Your task to perform on an android device: Search for "duracell triple a" on newegg.com, select the first entry, and add it to the cart. Image 0: 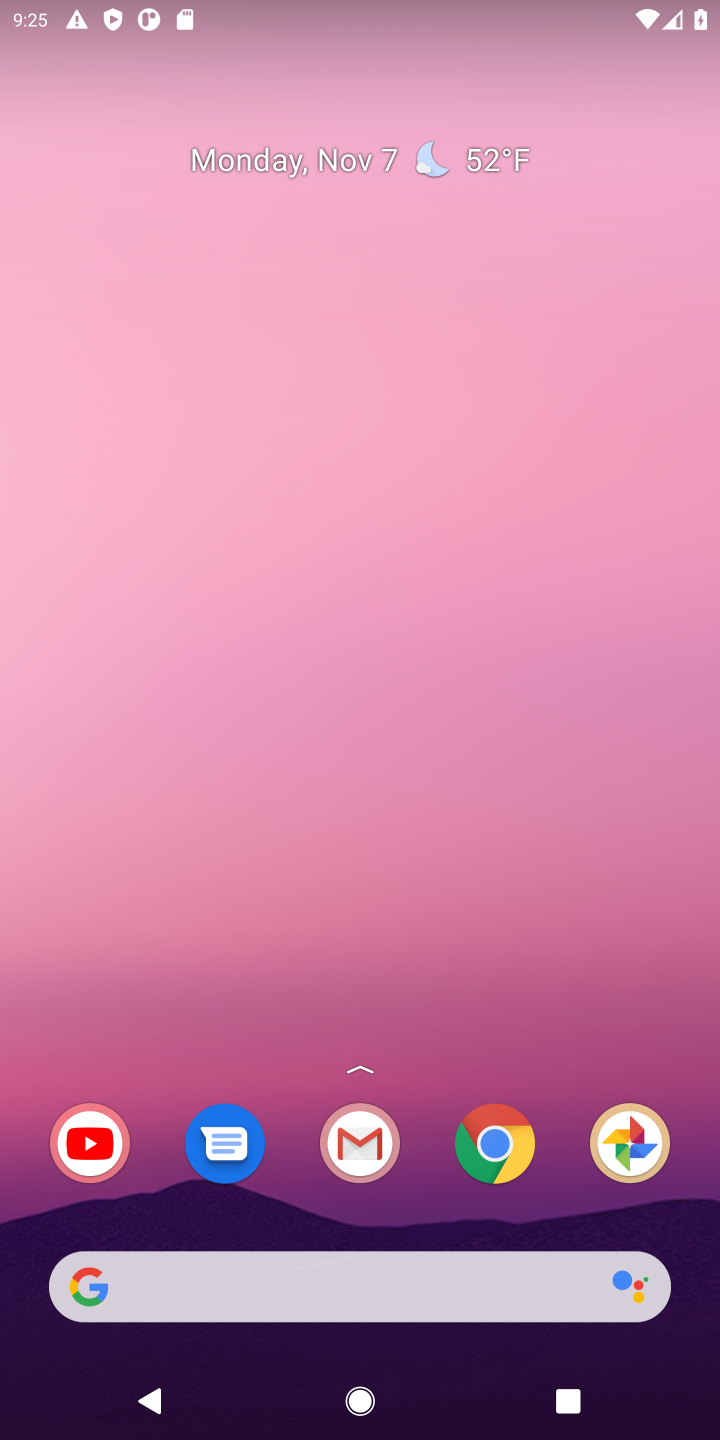
Step 0: press home button
Your task to perform on an android device: Search for "duracell triple a" on newegg.com, select the first entry, and add it to the cart. Image 1: 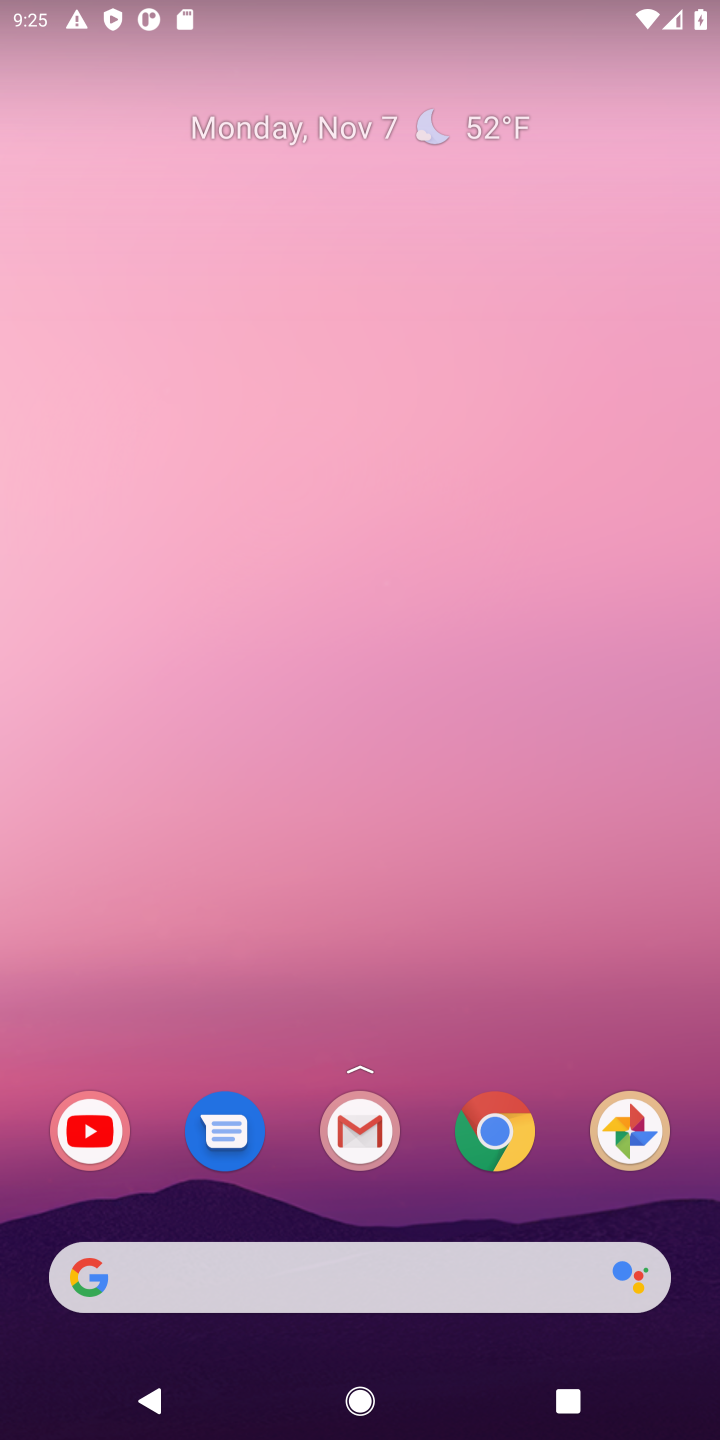
Step 1: click (517, 1149)
Your task to perform on an android device: Search for "duracell triple a" on newegg.com, select the first entry, and add it to the cart. Image 2: 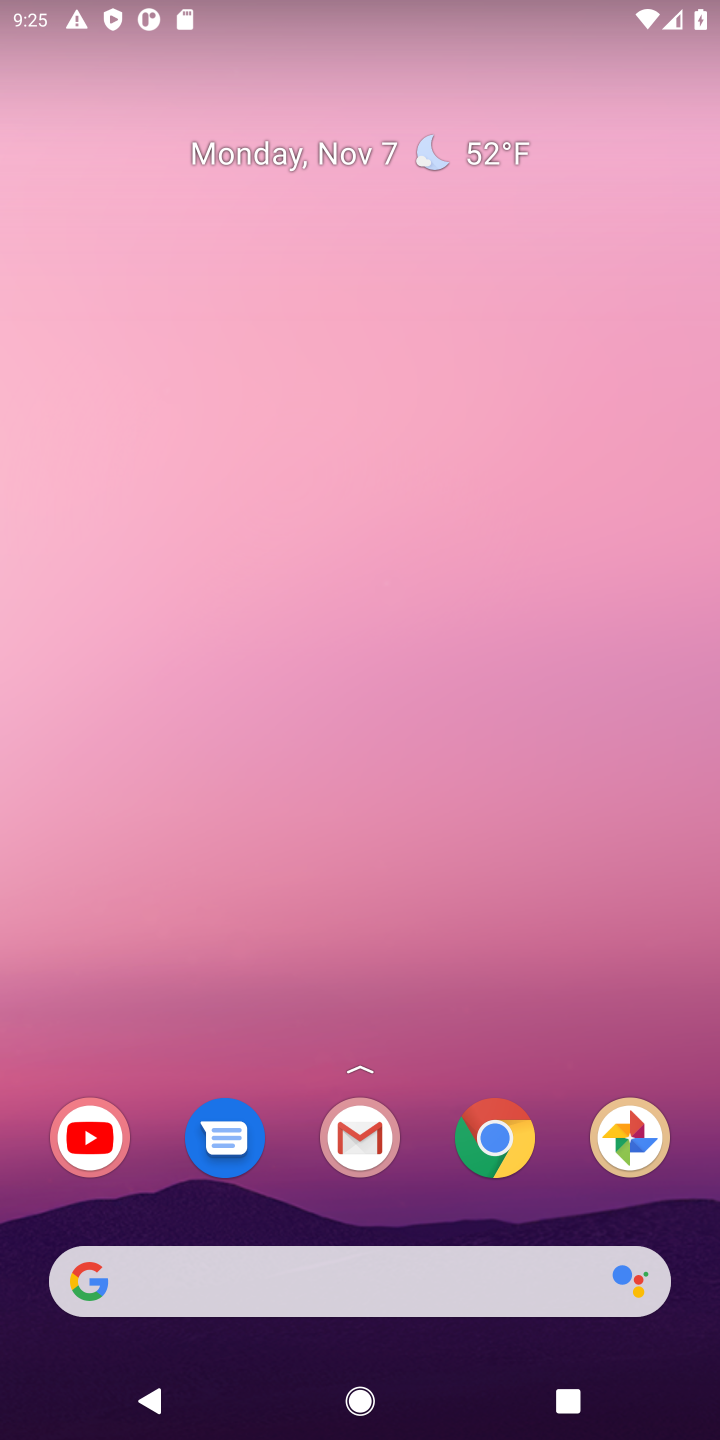
Step 2: click (521, 1147)
Your task to perform on an android device: Search for "duracell triple a" on newegg.com, select the first entry, and add it to the cart. Image 3: 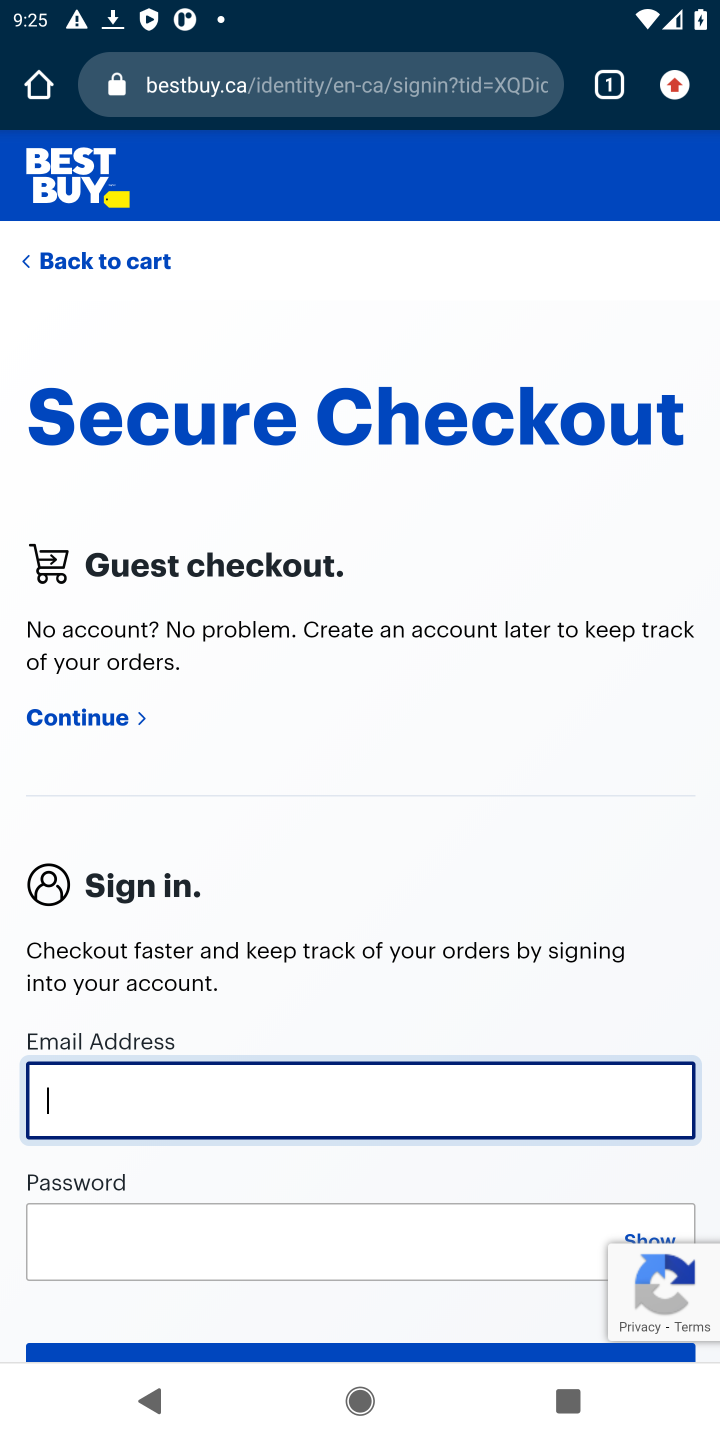
Step 3: click (217, 94)
Your task to perform on an android device: Search for "duracell triple a" on newegg.com, select the first entry, and add it to the cart. Image 4: 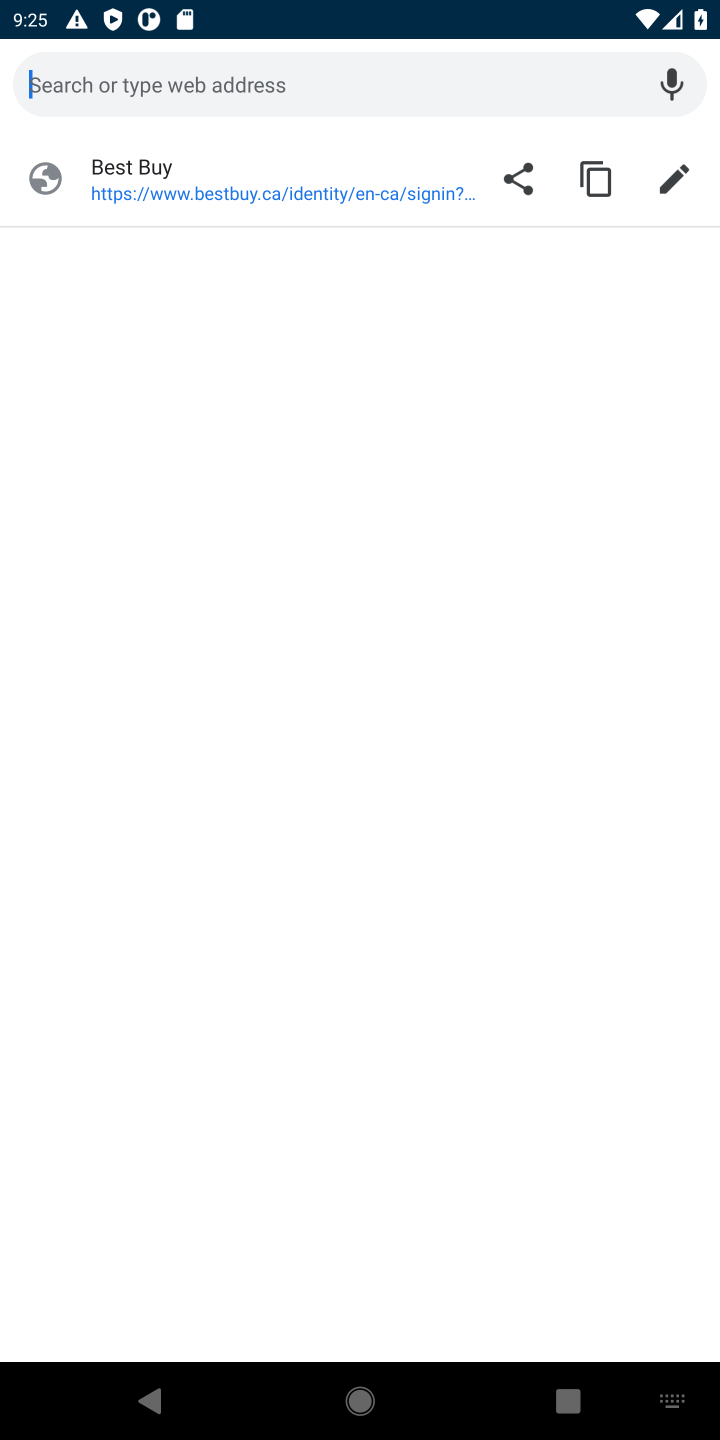
Step 4: type "newegg"
Your task to perform on an android device: Search for "duracell triple a" on newegg.com, select the first entry, and add it to the cart. Image 5: 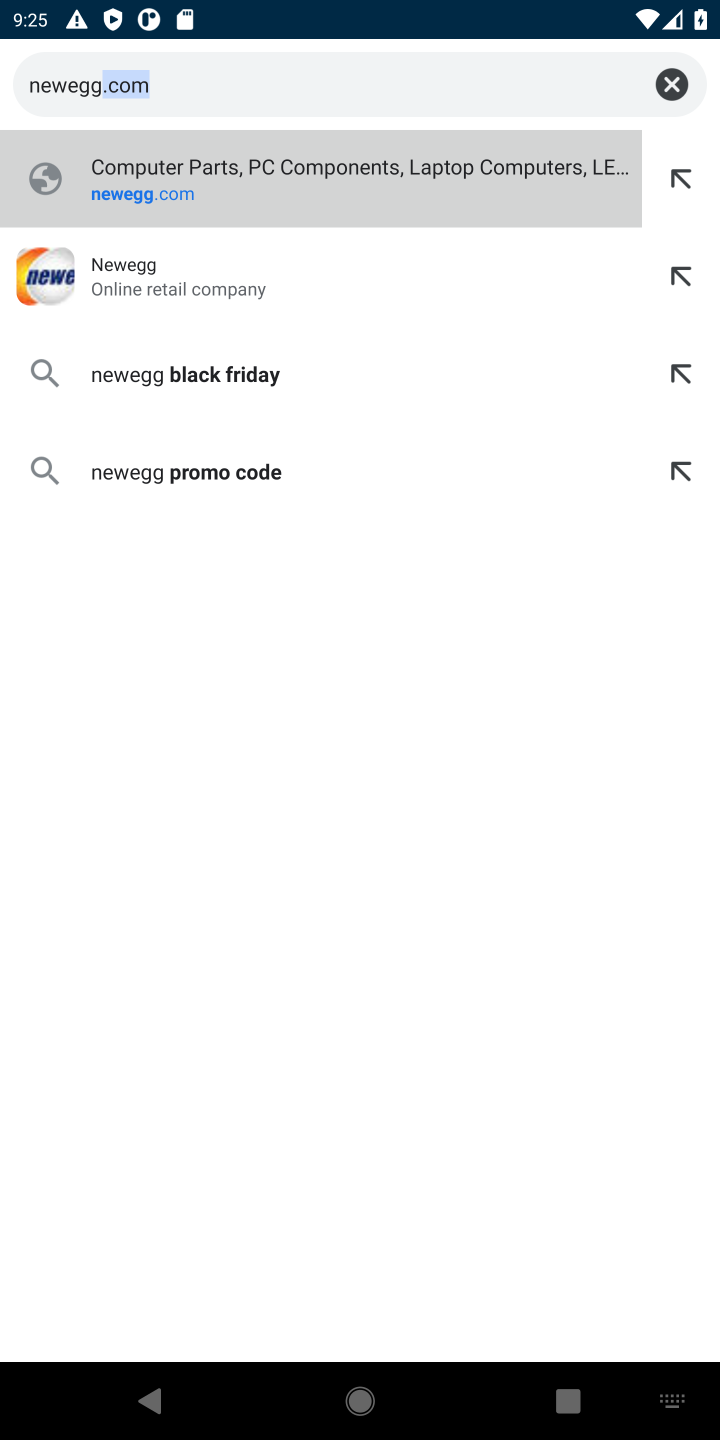
Step 5: click (135, 289)
Your task to perform on an android device: Search for "duracell triple a" on newegg.com, select the first entry, and add it to the cart. Image 6: 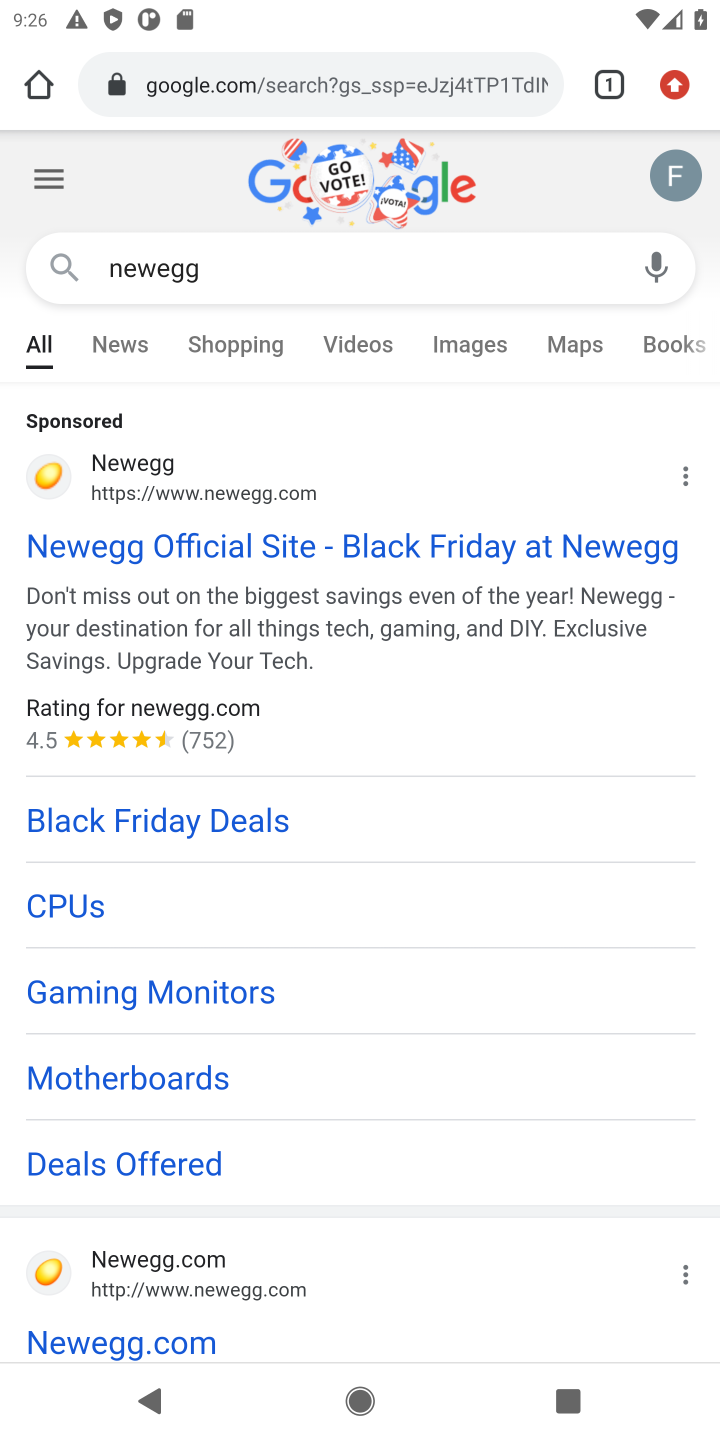
Step 6: click (49, 541)
Your task to perform on an android device: Search for "duracell triple a" on newegg.com, select the first entry, and add it to the cart. Image 7: 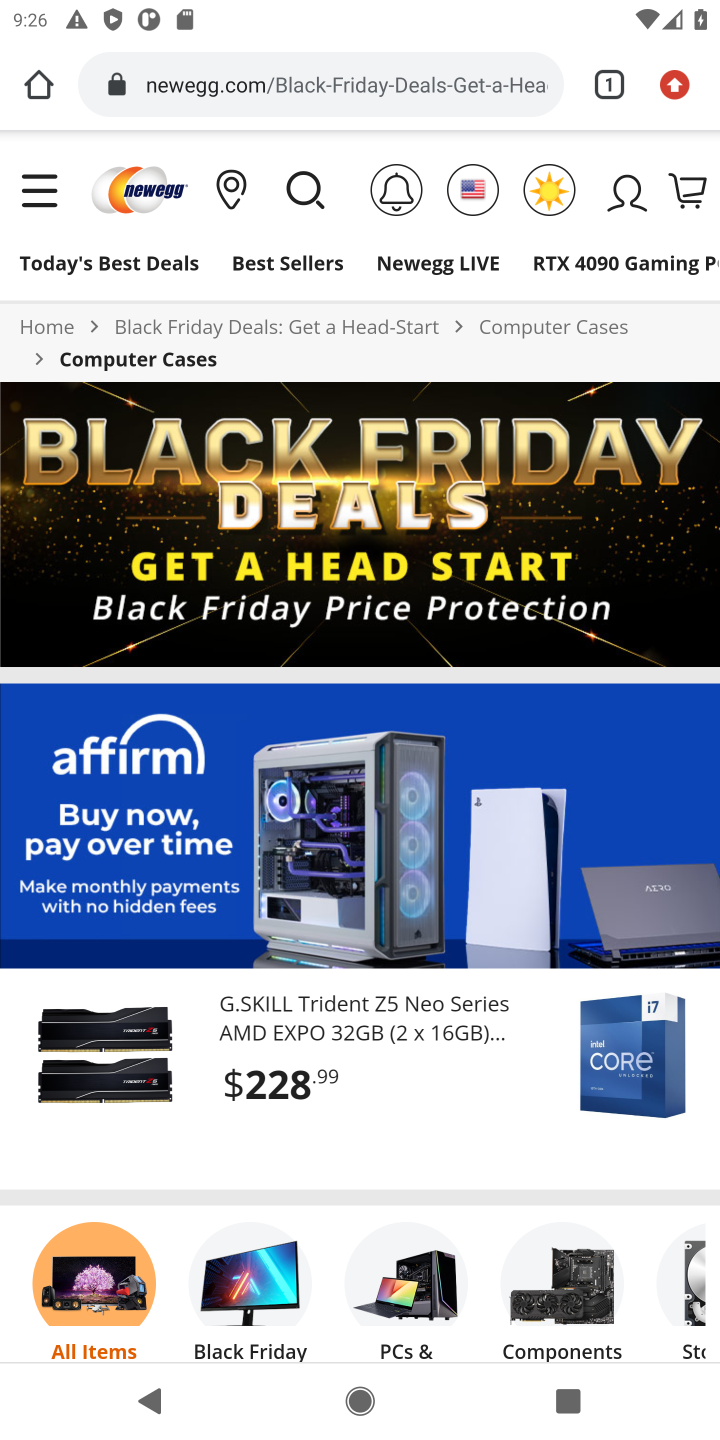
Step 7: click (297, 196)
Your task to perform on an android device: Search for "duracell triple a" on newegg.com, select the first entry, and add it to the cart. Image 8: 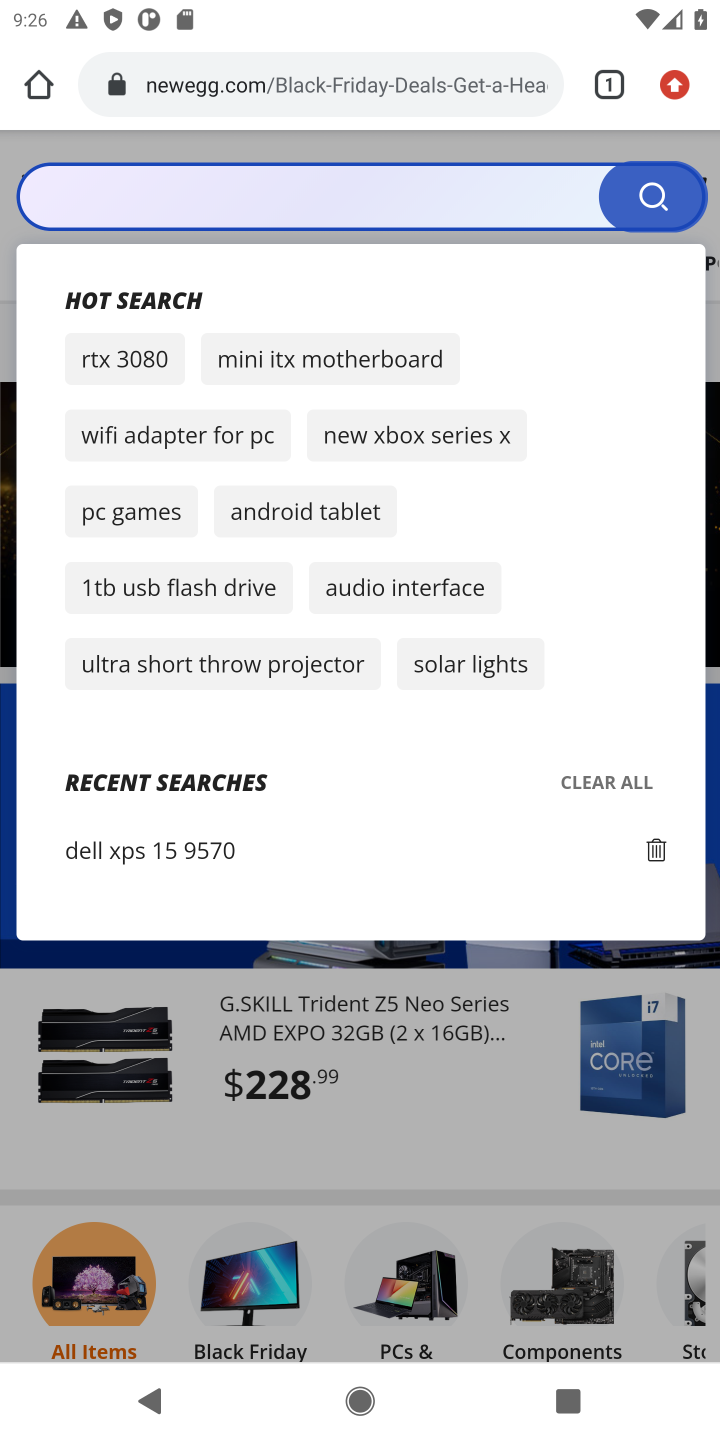
Step 8: click (140, 180)
Your task to perform on an android device: Search for "duracell triple a" on newegg.com, select the first entry, and add it to the cart. Image 9: 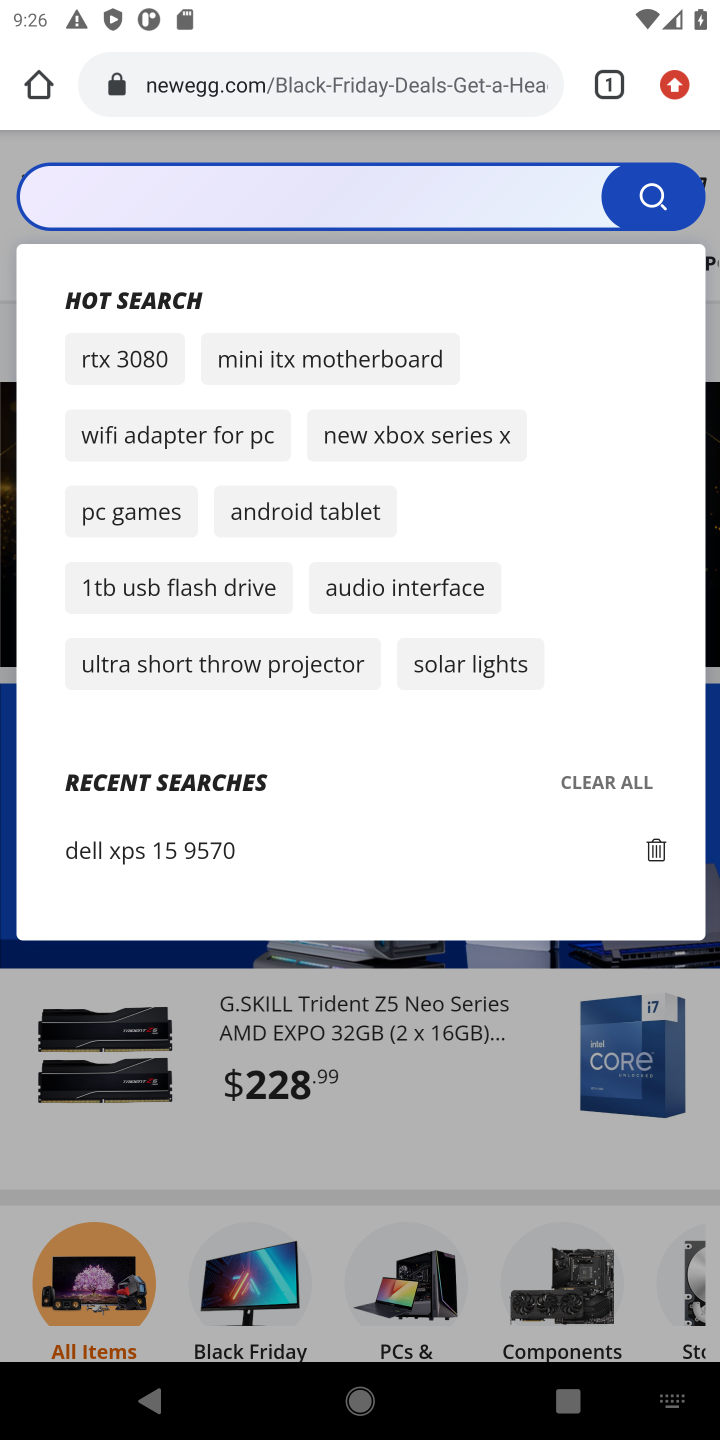
Step 9: type "duracell triple"
Your task to perform on an android device: Search for "duracell triple a" on newegg.com, select the first entry, and add it to the cart. Image 10: 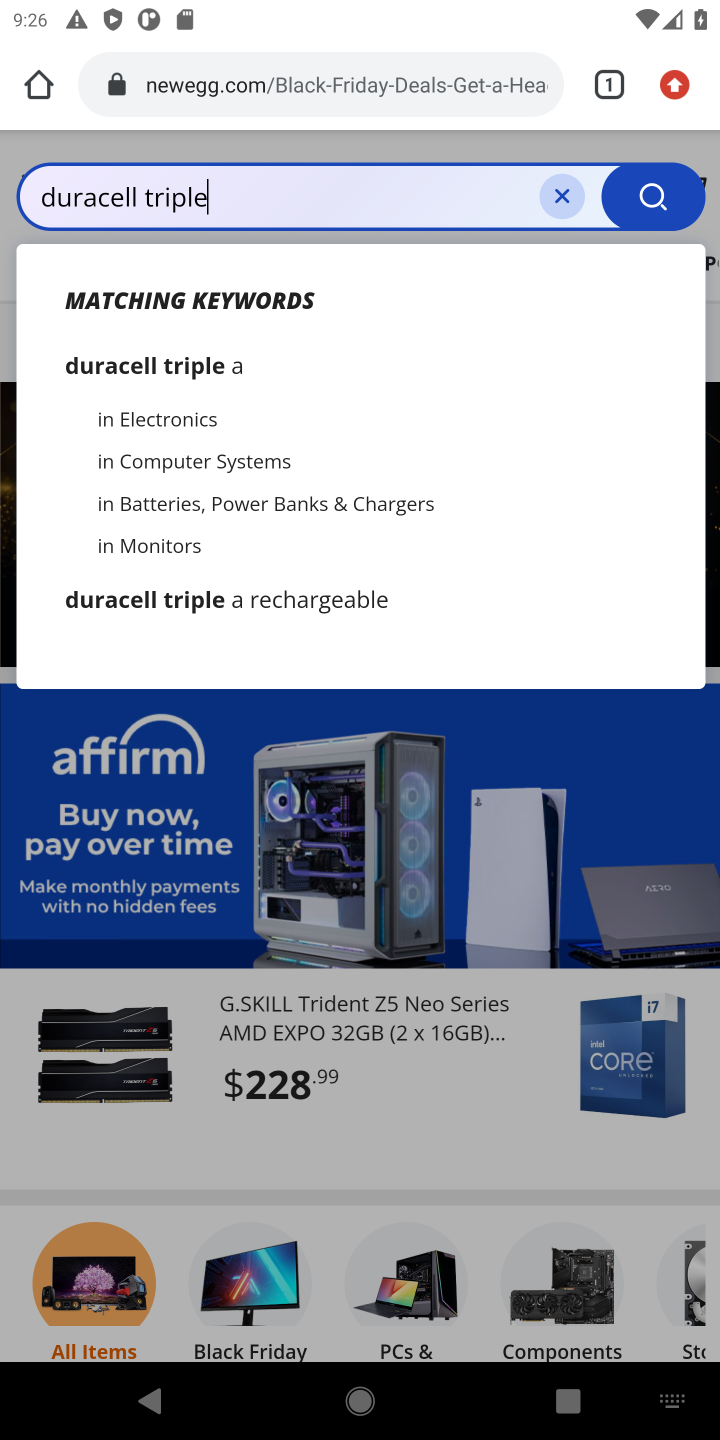
Step 10: click (186, 375)
Your task to perform on an android device: Search for "duracell triple a" on newegg.com, select the first entry, and add it to the cart. Image 11: 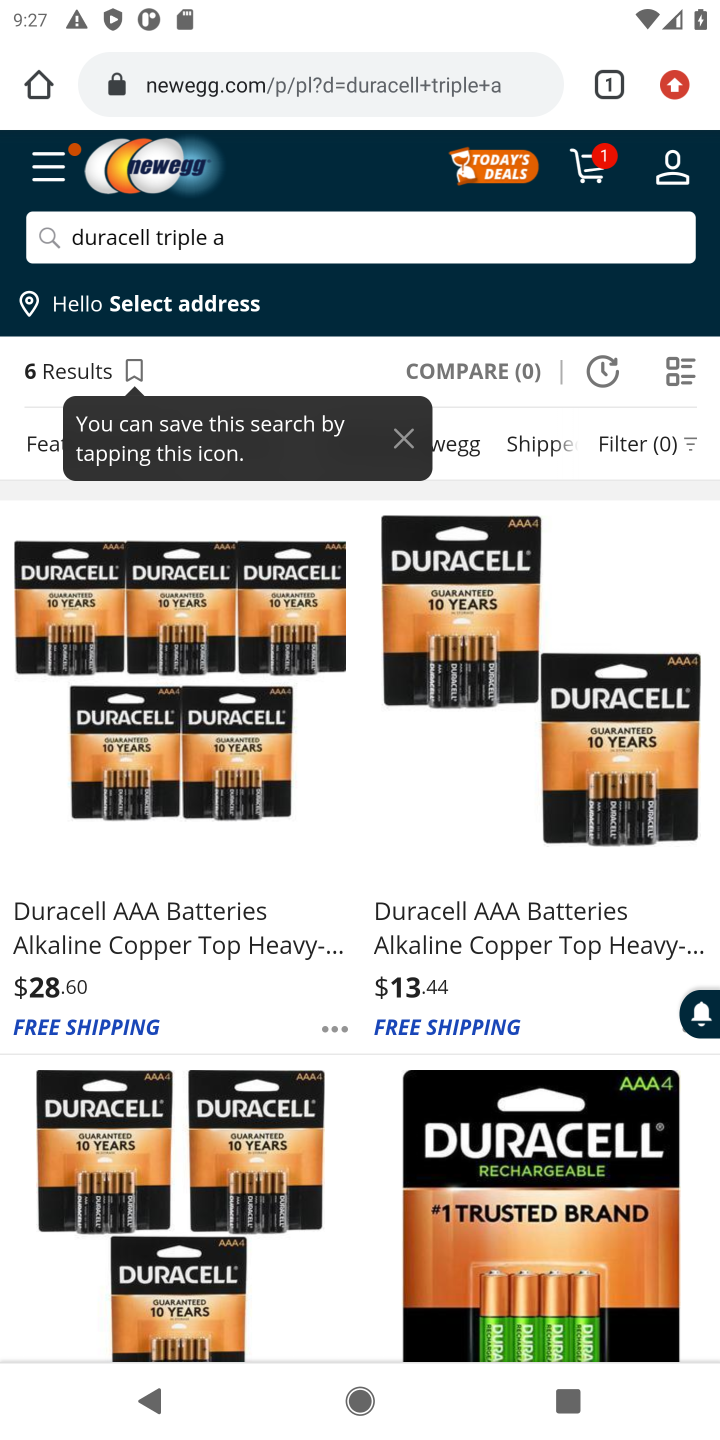
Step 11: click (505, 1179)
Your task to perform on an android device: Search for "duracell triple a" on newegg.com, select the first entry, and add it to the cart. Image 12: 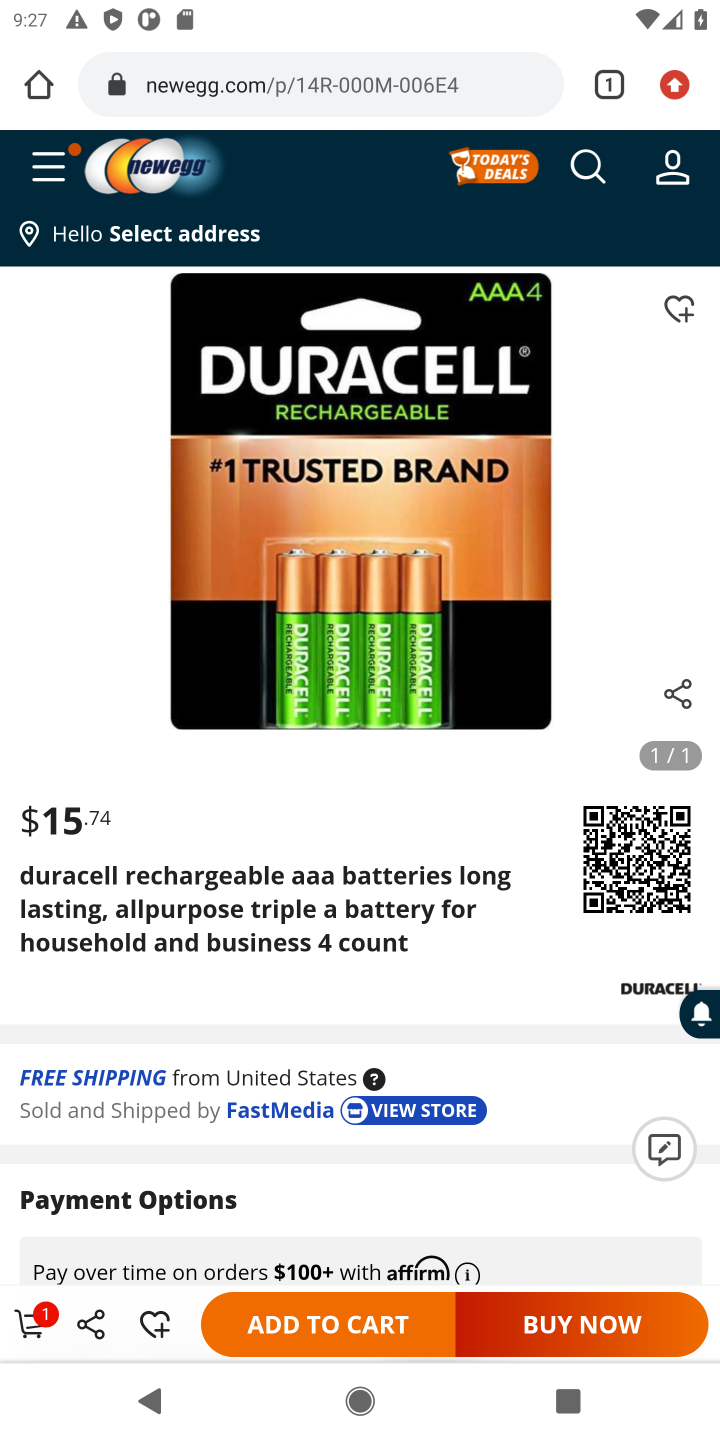
Step 12: click (314, 1318)
Your task to perform on an android device: Search for "duracell triple a" on newegg.com, select the first entry, and add it to the cart. Image 13: 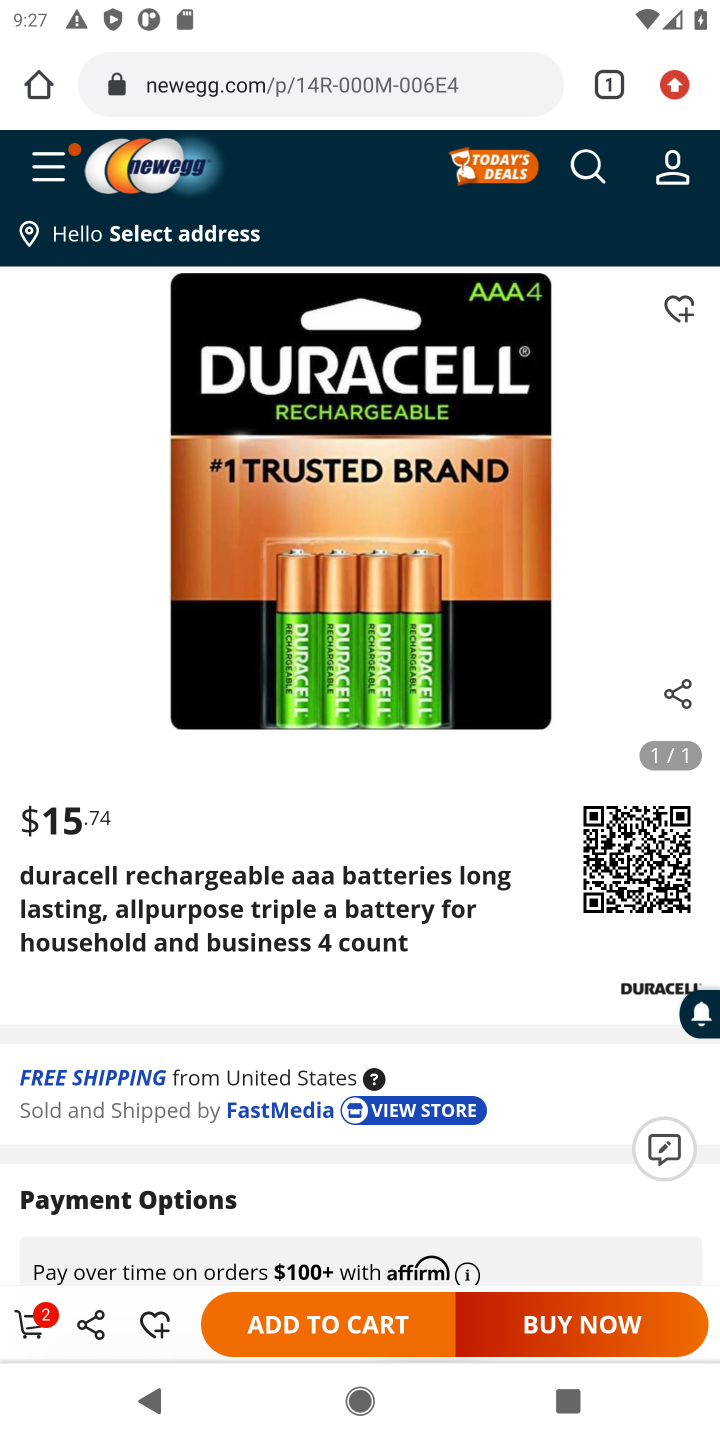
Step 13: click (314, 1318)
Your task to perform on an android device: Search for "duracell triple a" on newegg.com, select the first entry, and add it to the cart. Image 14: 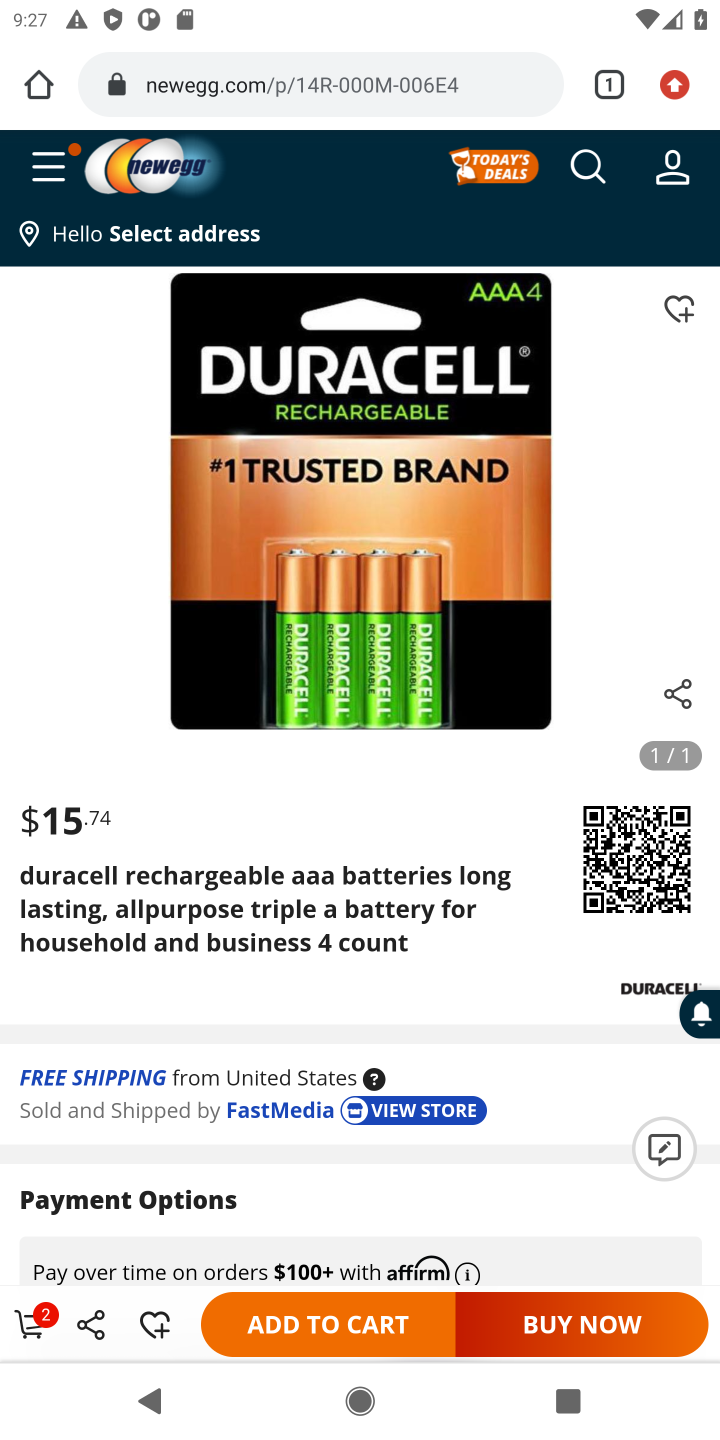
Step 14: drag from (332, 936) to (399, 376)
Your task to perform on an android device: Search for "duracell triple a" on newegg.com, select the first entry, and add it to the cart. Image 15: 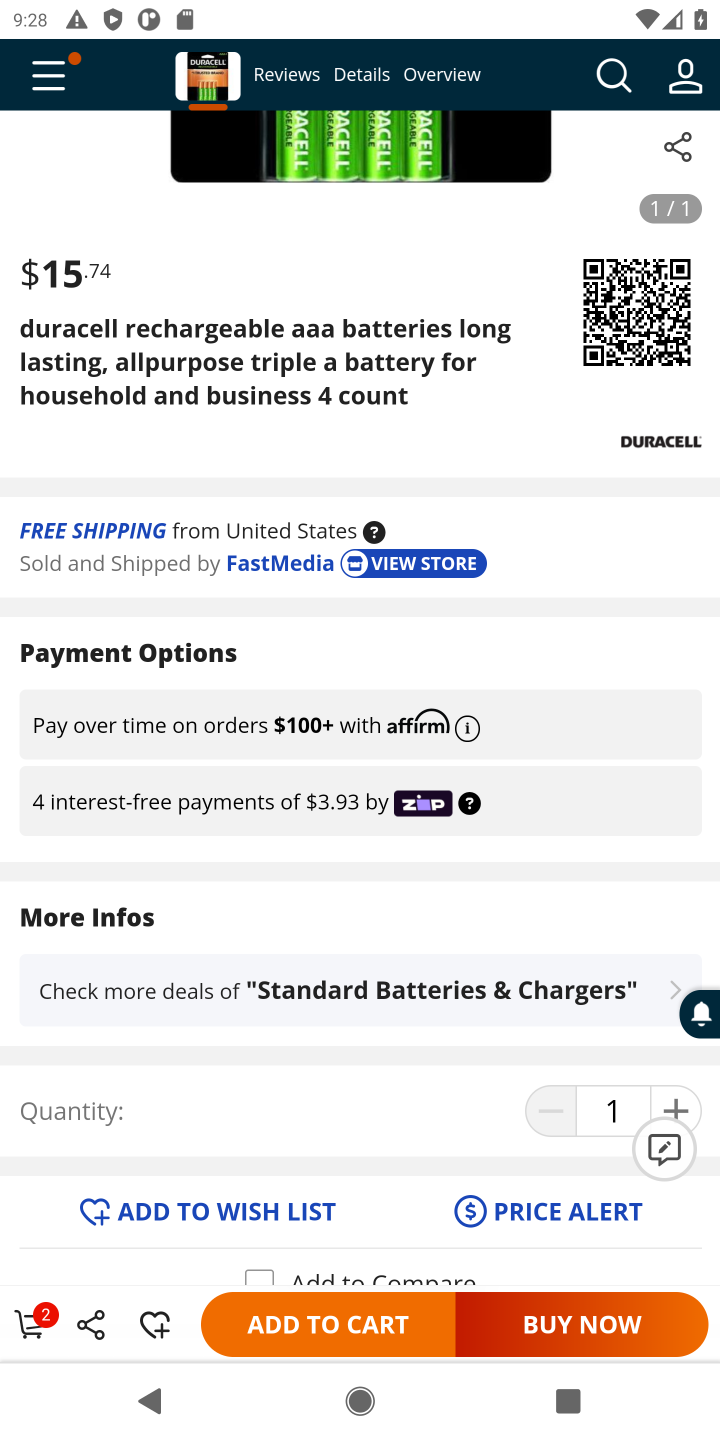
Step 15: drag from (307, 1071) to (295, 768)
Your task to perform on an android device: Search for "duracell triple a" on newegg.com, select the first entry, and add it to the cart. Image 16: 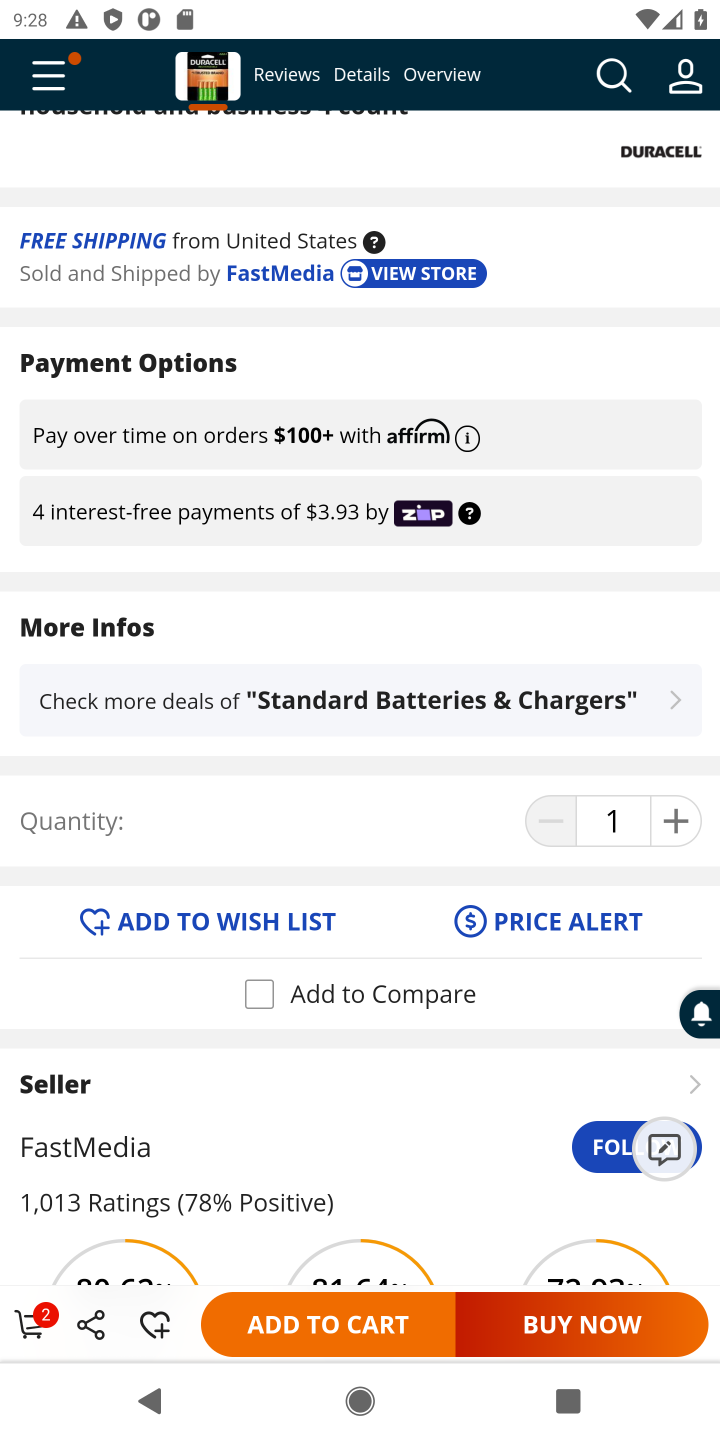
Step 16: click (308, 1335)
Your task to perform on an android device: Search for "duracell triple a" on newegg.com, select the first entry, and add it to the cart. Image 17: 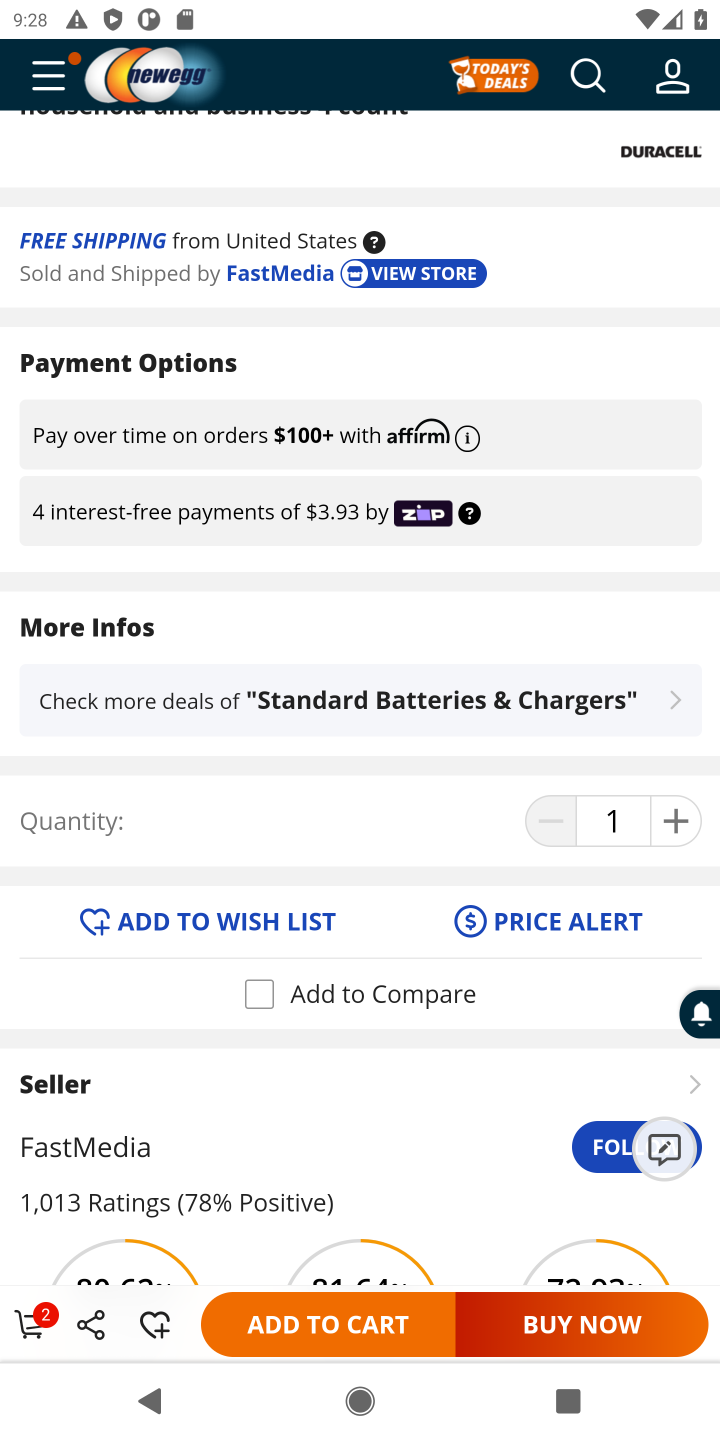
Step 17: task complete